Your task to perform on an android device: Go to Amazon Image 0: 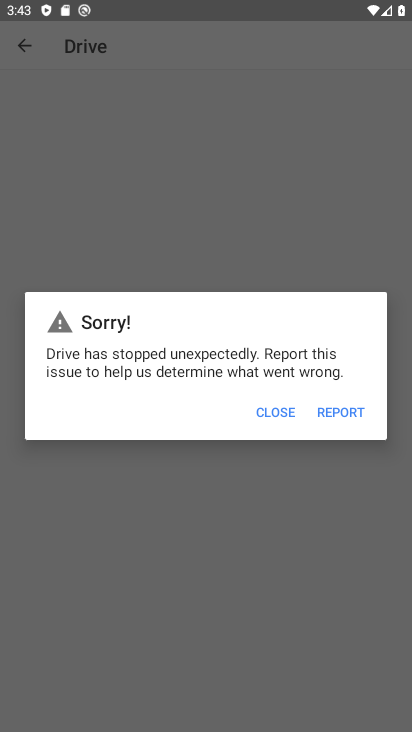
Step 0: press home button
Your task to perform on an android device: Go to Amazon Image 1: 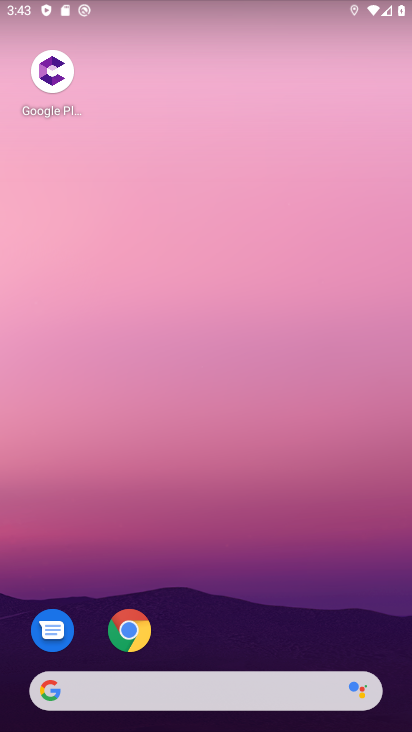
Step 1: drag from (238, 653) to (182, 57)
Your task to perform on an android device: Go to Amazon Image 2: 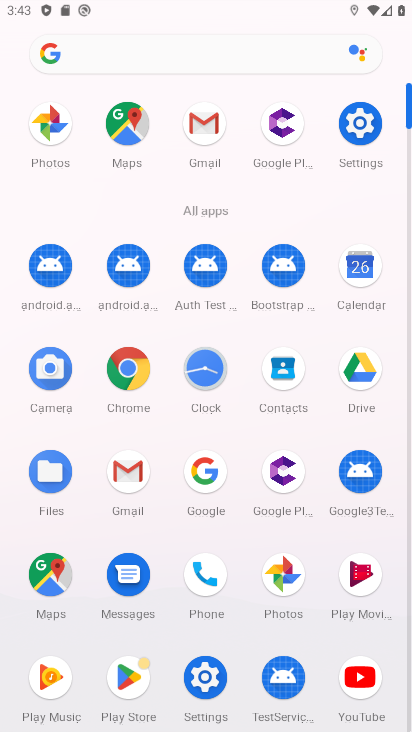
Step 2: click (134, 379)
Your task to perform on an android device: Go to Amazon Image 3: 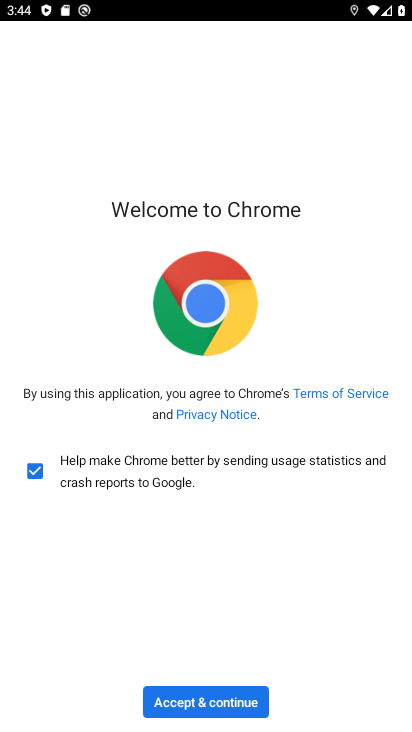
Step 3: click (238, 697)
Your task to perform on an android device: Go to Amazon Image 4: 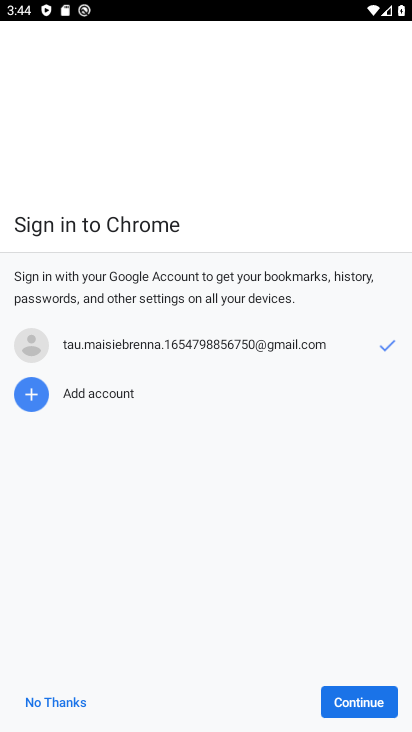
Step 4: click (382, 702)
Your task to perform on an android device: Go to Amazon Image 5: 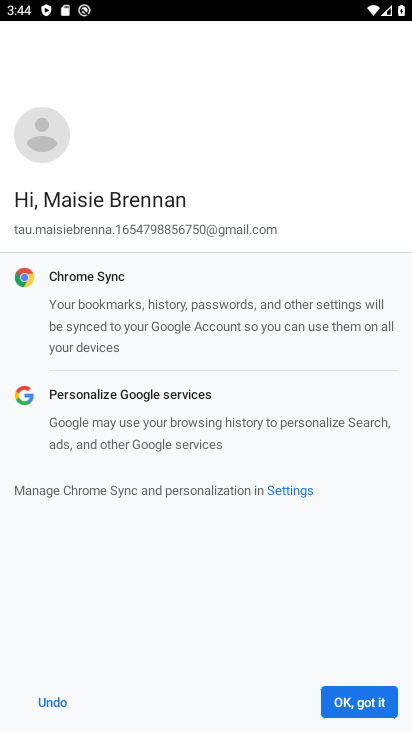
Step 5: click (382, 702)
Your task to perform on an android device: Go to Amazon Image 6: 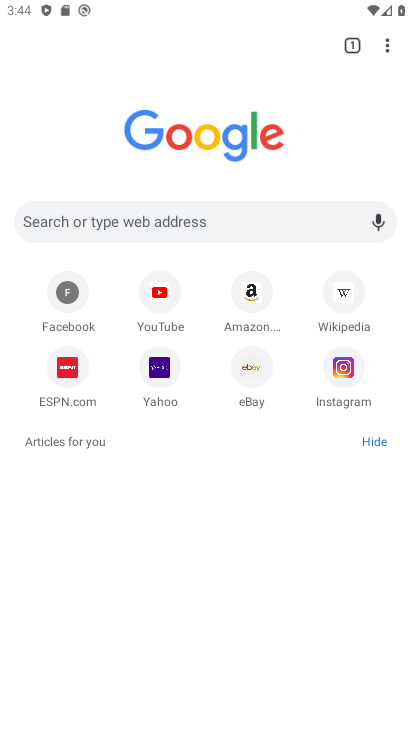
Step 6: click (245, 285)
Your task to perform on an android device: Go to Amazon Image 7: 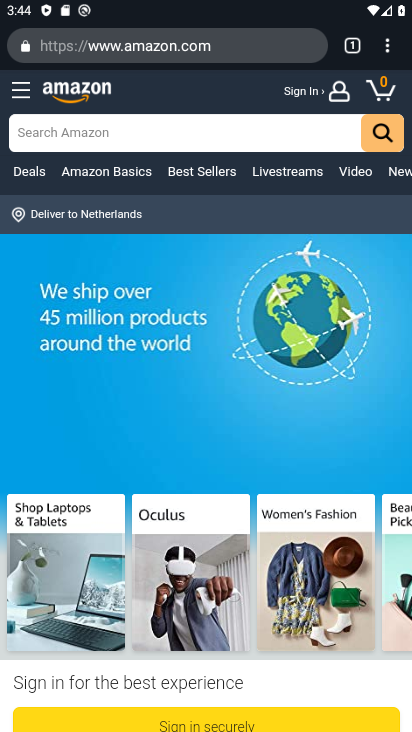
Step 7: task complete